Your task to perform on an android device: turn on bluetooth scan Image 0: 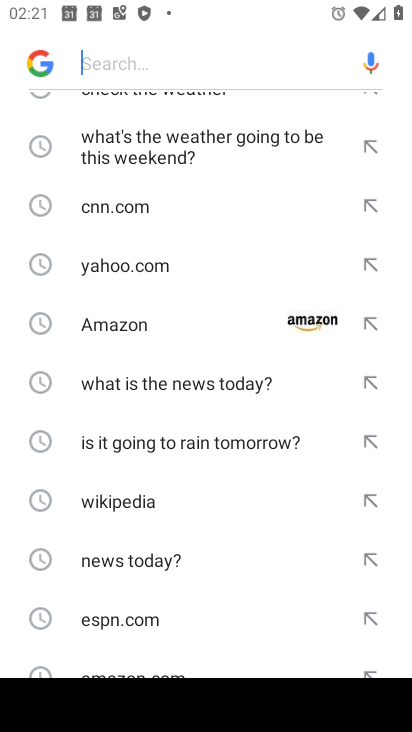
Step 0: press home button
Your task to perform on an android device: turn on bluetooth scan Image 1: 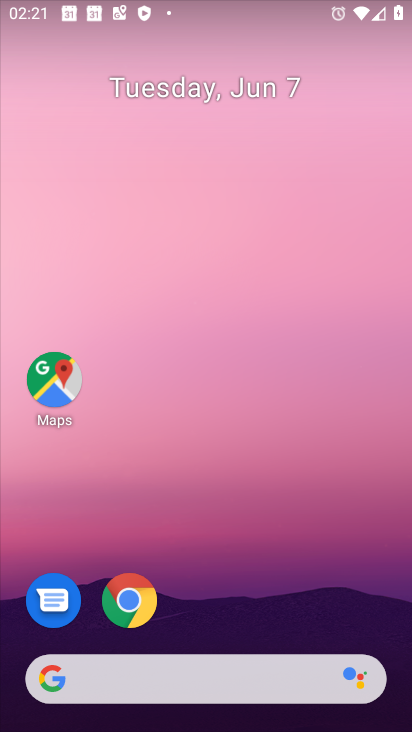
Step 1: drag from (214, 713) to (227, 249)
Your task to perform on an android device: turn on bluetooth scan Image 2: 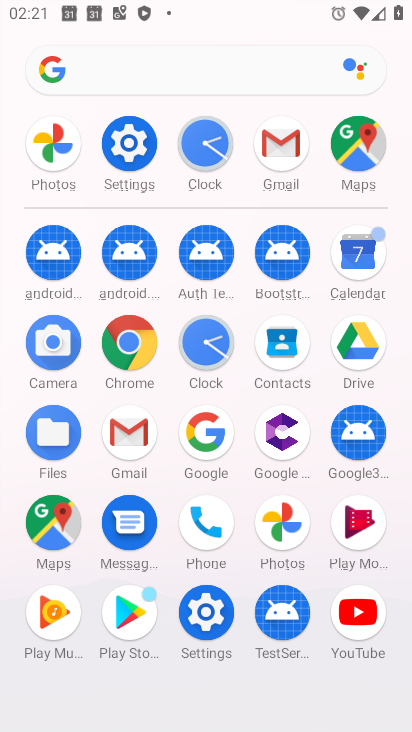
Step 2: click (132, 144)
Your task to perform on an android device: turn on bluetooth scan Image 3: 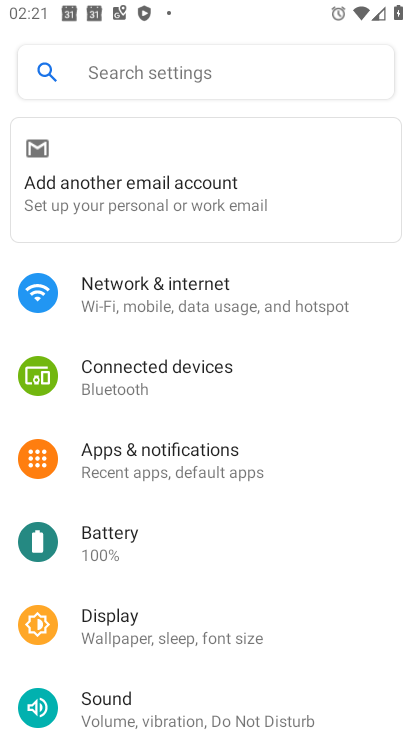
Step 3: drag from (195, 692) to (217, 405)
Your task to perform on an android device: turn on bluetooth scan Image 4: 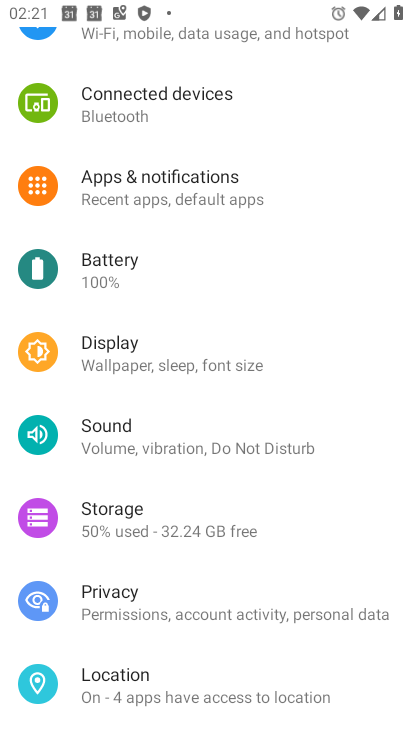
Step 4: drag from (192, 631) to (203, 361)
Your task to perform on an android device: turn on bluetooth scan Image 5: 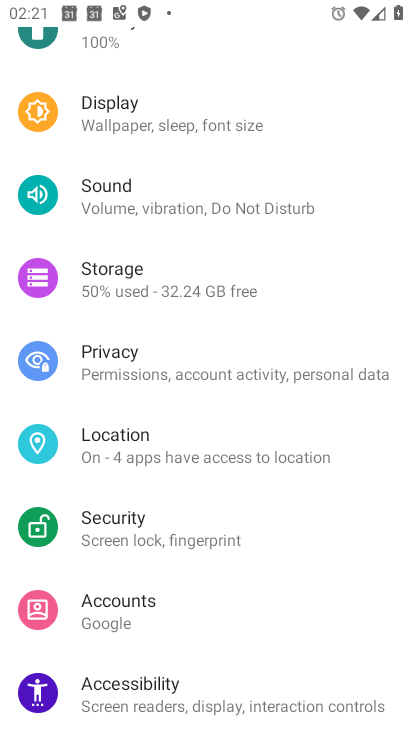
Step 5: click (115, 440)
Your task to perform on an android device: turn on bluetooth scan Image 6: 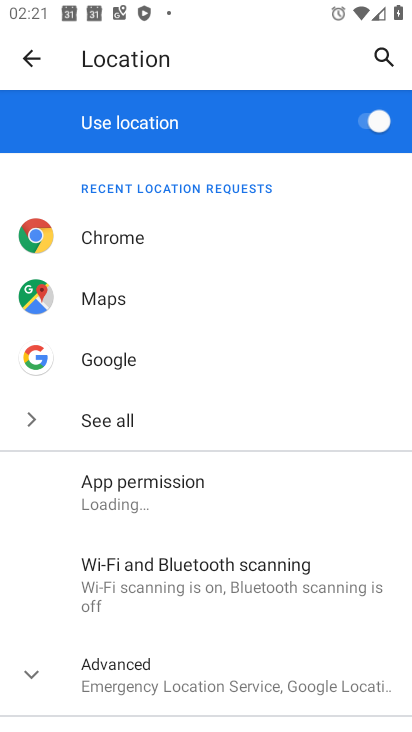
Step 6: drag from (191, 652) to (186, 452)
Your task to perform on an android device: turn on bluetooth scan Image 7: 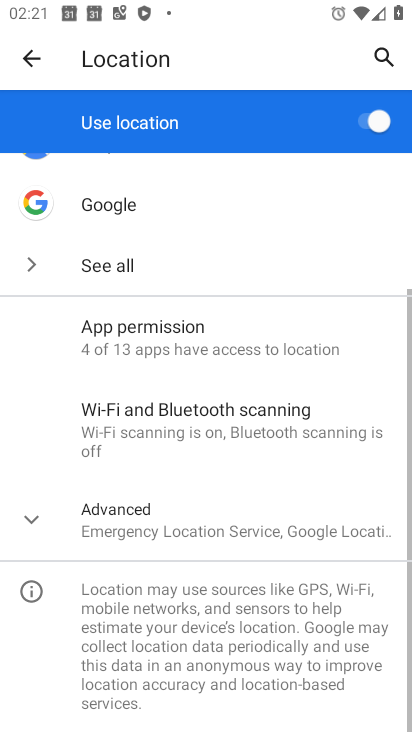
Step 7: click (132, 420)
Your task to perform on an android device: turn on bluetooth scan Image 8: 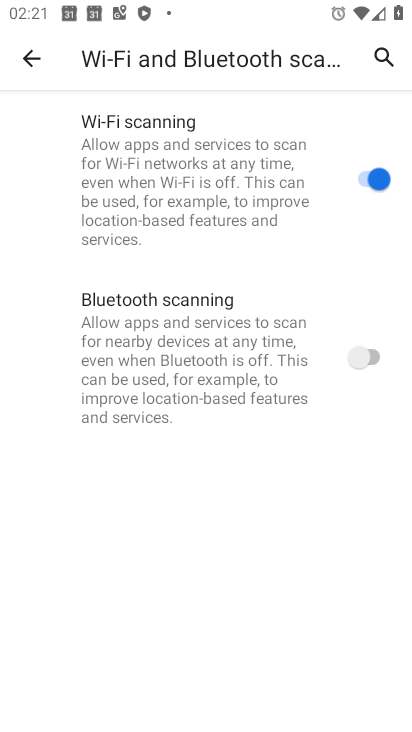
Step 8: click (375, 358)
Your task to perform on an android device: turn on bluetooth scan Image 9: 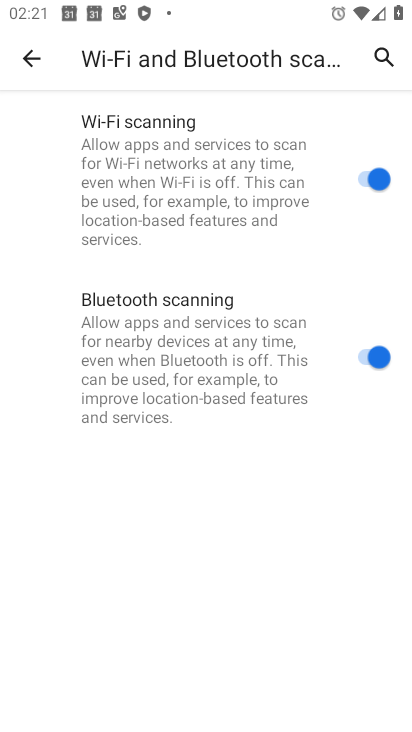
Step 9: task complete